Your task to perform on an android device: Open the Play Movies app and select the watchlist tab. Image 0: 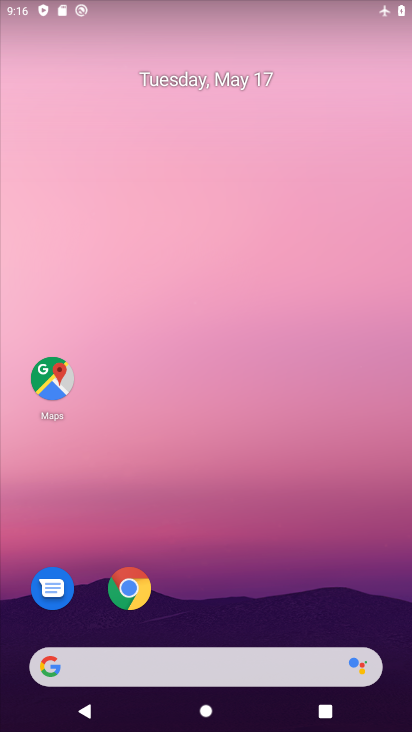
Step 0: drag from (227, 730) to (237, 235)
Your task to perform on an android device: Open the Play Movies app and select the watchlist tab. Image 1: 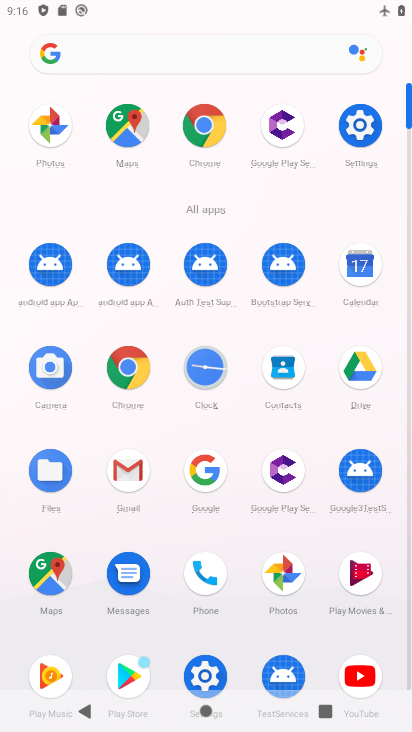
Step 1: click (354, 569)
Your task to perform on an android device: Open the Play Movies app and select the watchlist tab. Image 2: 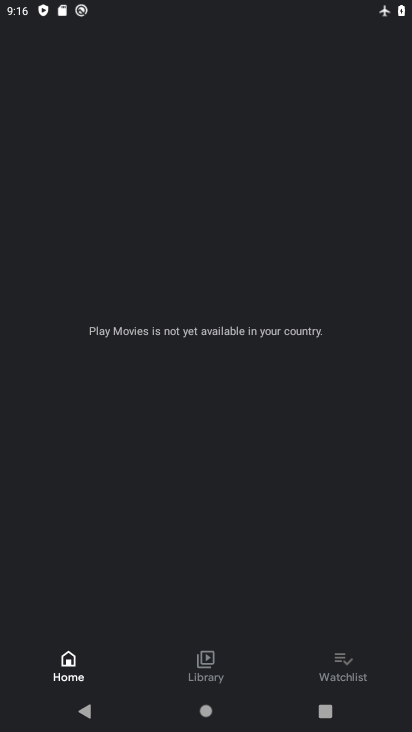
Step 2: click (344, 668)
Your task to perform on an android device: Open the Play Movies app and select the watchlist tab. Image 3: 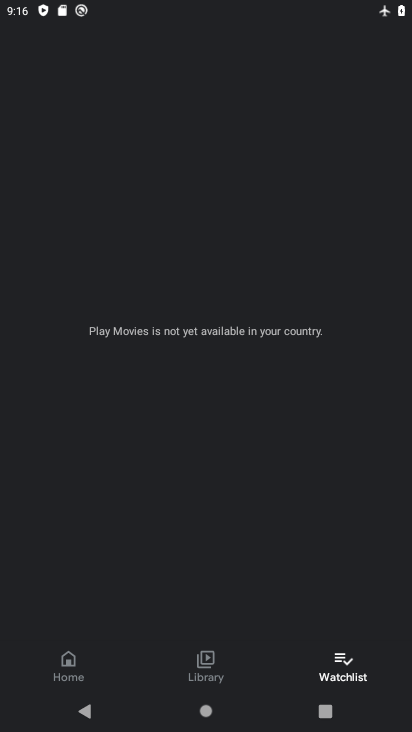
Step 3: task complete